Your task to perform on an android device: turn off javascript in the chrome app Image 0: 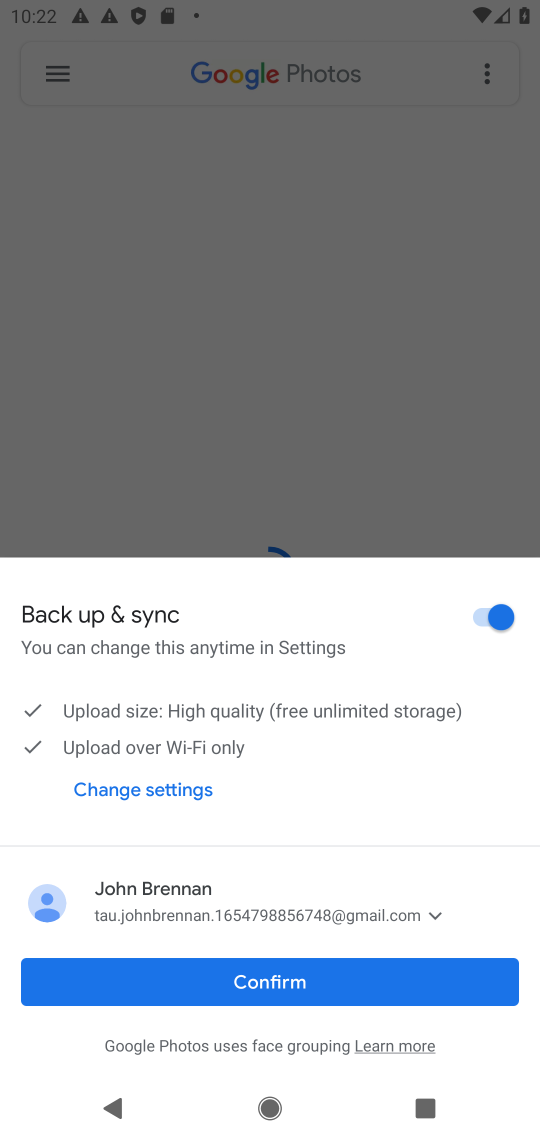
Step 0: press back button
Your task to perform on an android device: turn off javascript in the chrome app Image 1: 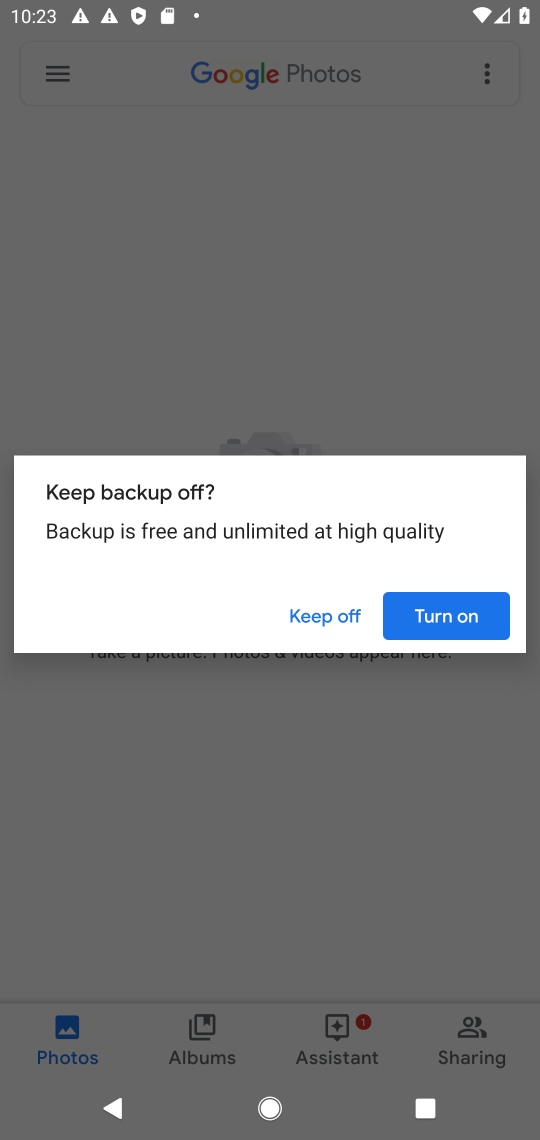
Step 1: click (403, 625)
Your task to perform on an android device: turn off javascript in the chrome app Image 2: 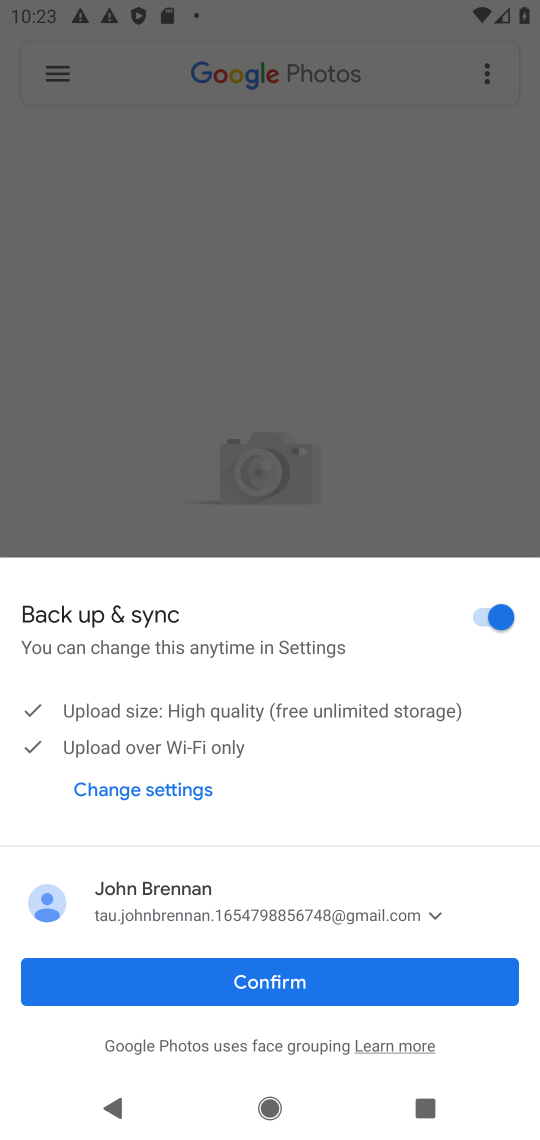
Step 2: press home button
Your task to perform on an android device: turn off javascript in the chrome app Image 3: 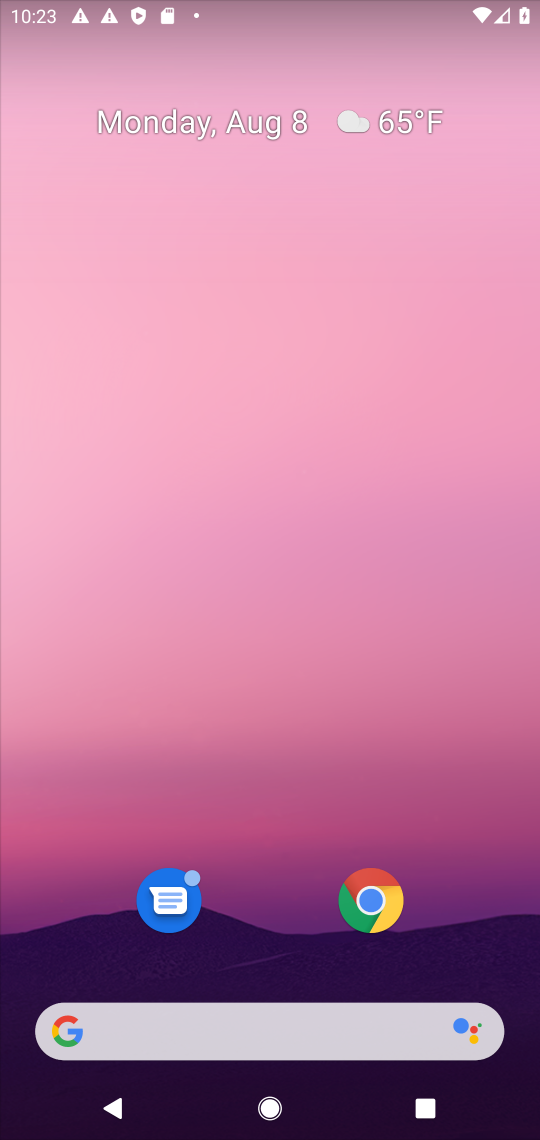
Step 3: click (385, 909)
Your task to perform on an android device: turn off javascript in the chrome app Image 4: 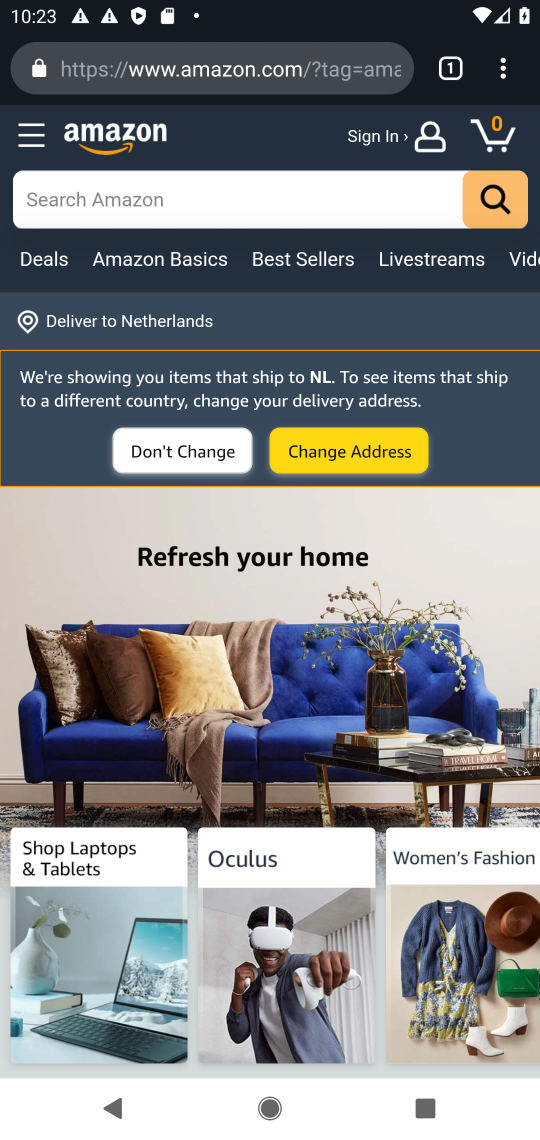
Step 4: click (505, 68)
Your task to perform on an android device: turn off javascript in the chrome app Image 5: 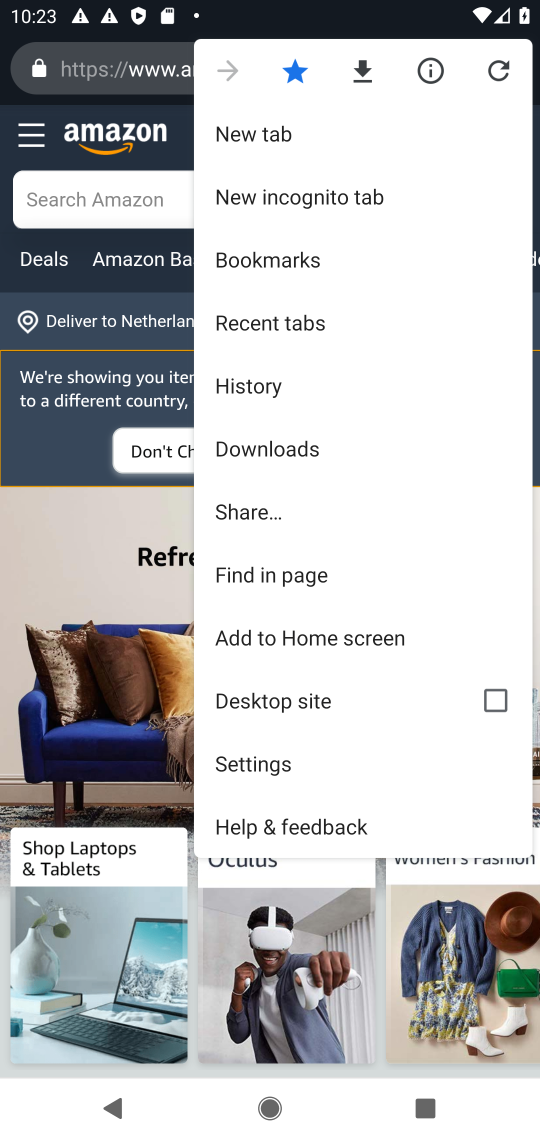
Step 5: click (257, 754)
Your task to perform on an android device: turn off javascript in the chrome app Image 6: 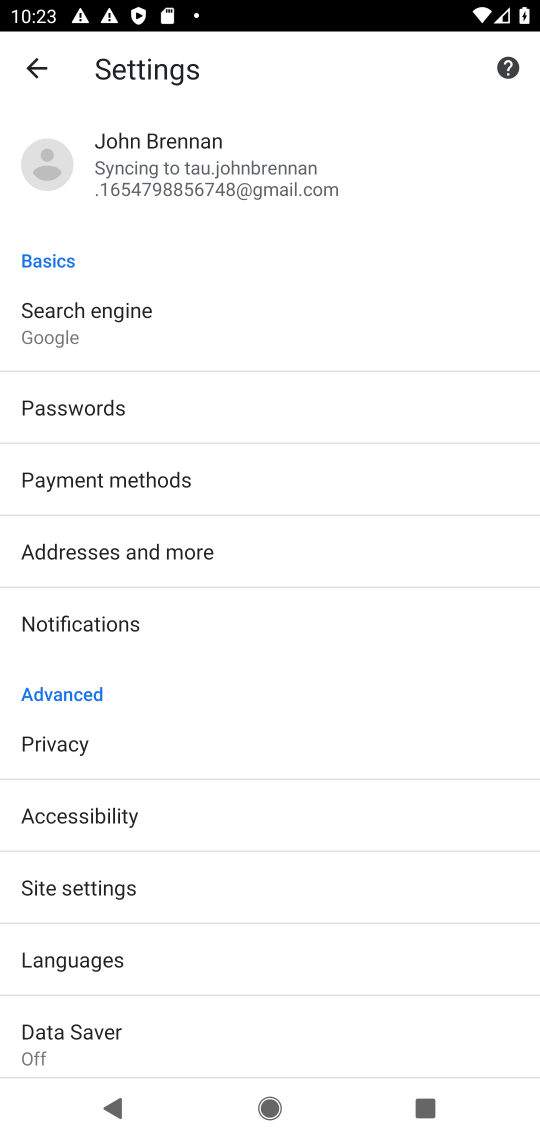
Step 6: click (93, 881)
Your task to perform on an android device: turn off javascript in the chrome app Image 7: 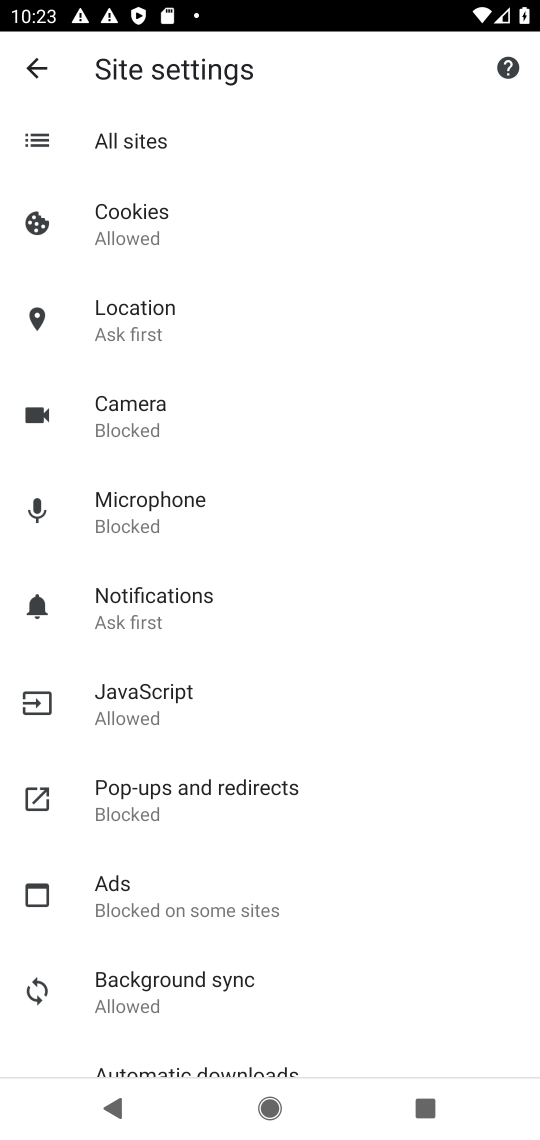
Step 7: click (148, 723)
Your task to perform on an android device: turn off javascript in the chrome app Image 8: 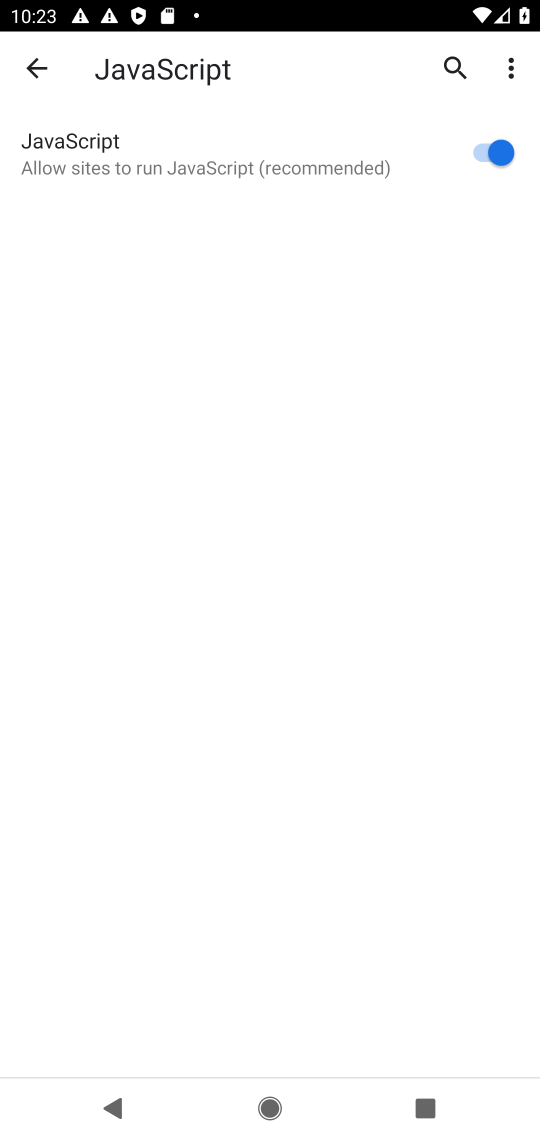
Step 8: click (474, 148)
Your task to perform on an android device: turn off javascript in the chrome app Image 9: 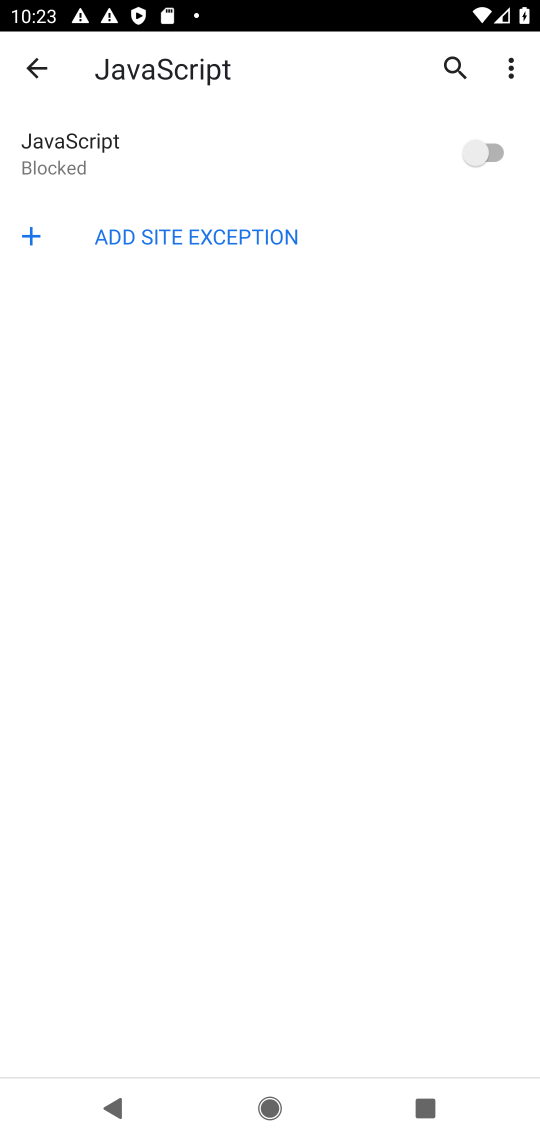
Step 9: task complete